Your task to perform on an android device: Search for Italian restaurants on Maps Image 0: 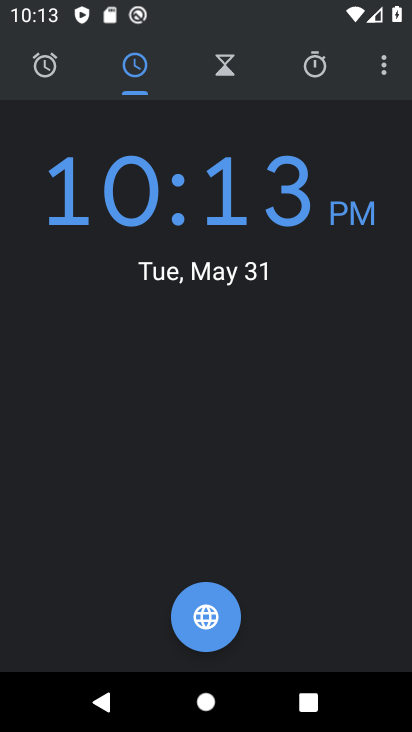
Step 0: press home button
Your task to perform on an android device: Search for Italian restaurants on Maps Image 1: 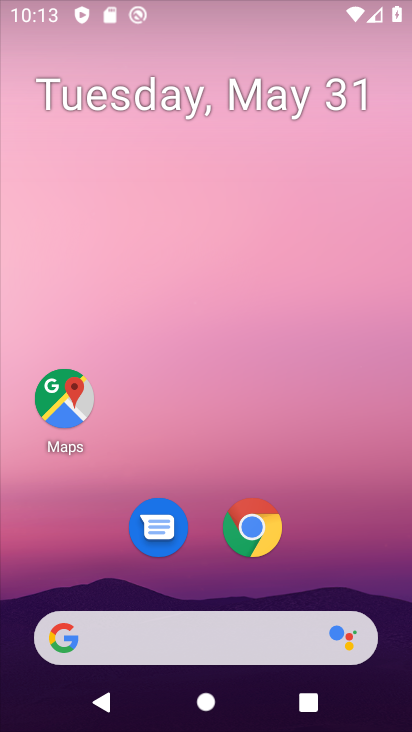
Step 1: click (76, 408)
Your task to perform on an android device: Search for Italian restaurants on Maps Image 2: 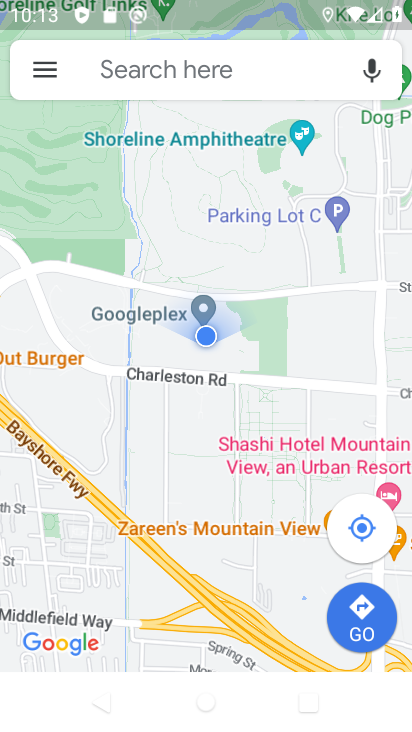
Step 2: click (200, 72)
Your task to perform on an android device: Search for Italian restaurants on Maps Image 3: 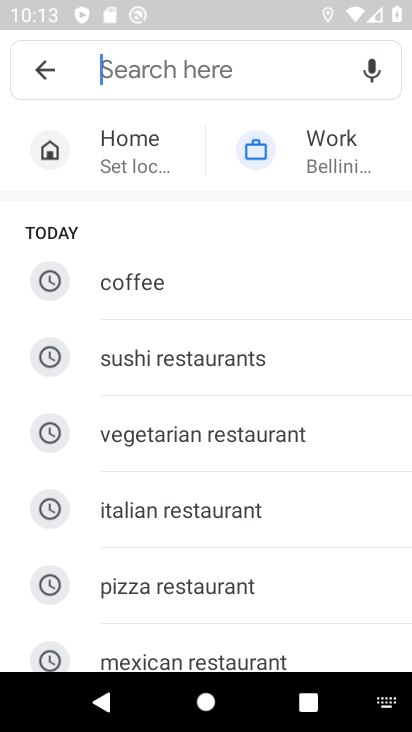
Step 3: click (247, 515)
Your task to perform on an android device: Search for Italian restaurants on Maps Image 4: 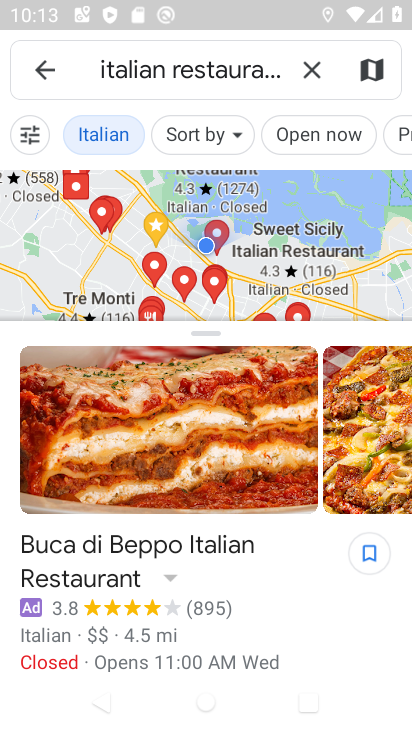
Step 4: task complete